Your task to perform on an android device: Open ESPN.com Image 0: 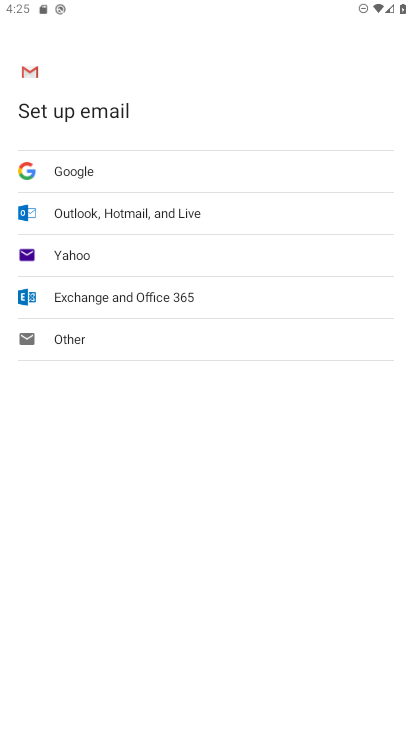
Step 0: press home button
Your task to perform on an android device: Open ESPN.com Image 1: 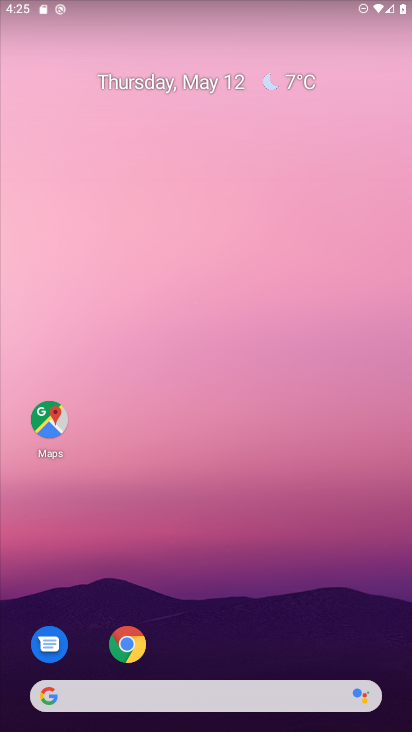
Step 1: click (130, 657)
Your task to perform on an android device: Open ESPN.com Image 2: 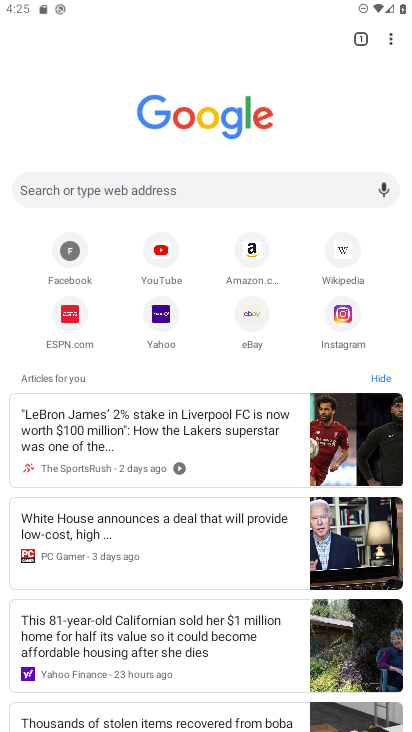
Step 2: click (77, 334)
Your task to perform on an android device: Open ESPN.com Image 3: 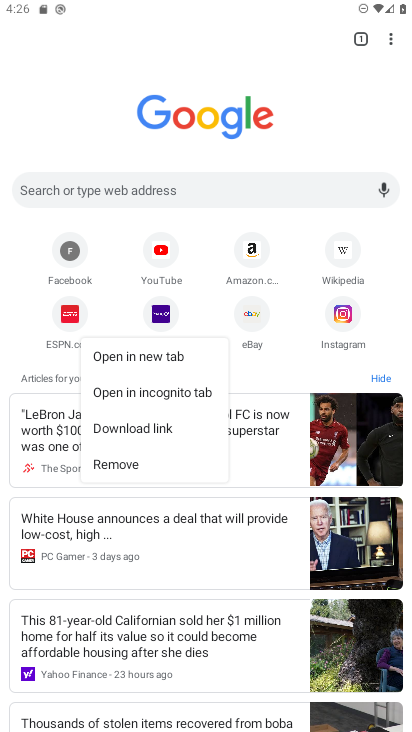
Step 3: click (69, 329)
Your task to perform on an android device: Open ESPN.com Image 4: 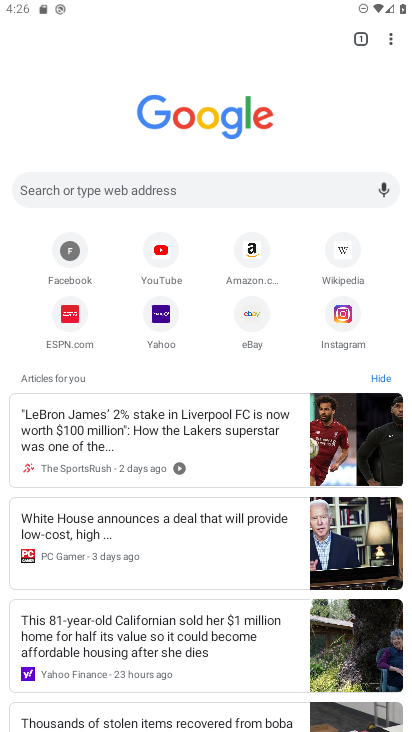
Step 4: click (69, 331)
Your task to perform on an android device: Open ESPN.com Image 5: 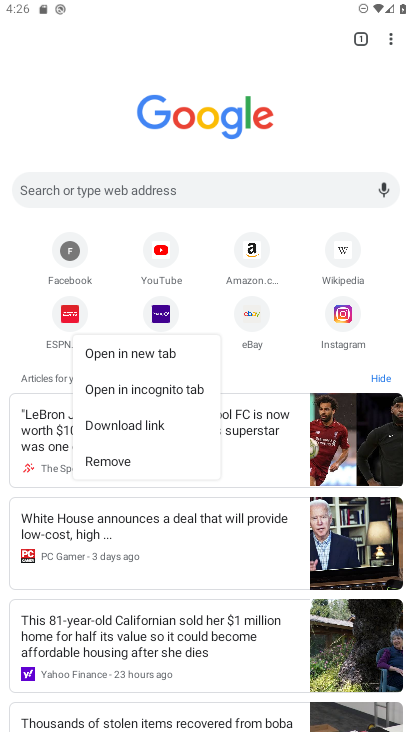
Step 5: click (60, 307)
Your task to perform on an android device: Open ESPN.com Image 6: 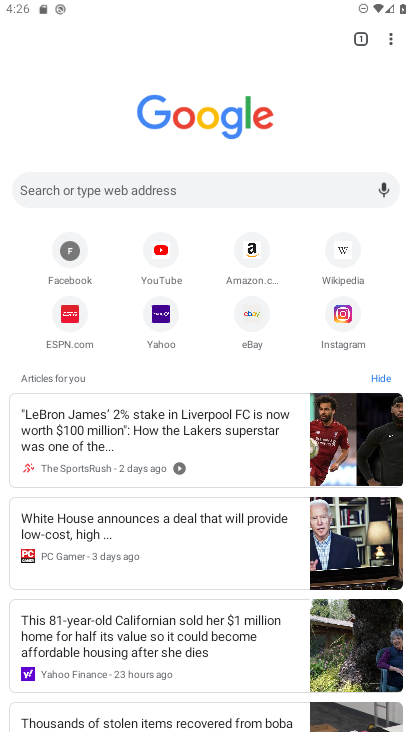
Step 6: click (59, 315)
Your task to perform on an android device: Open ESPN.com Image 7: 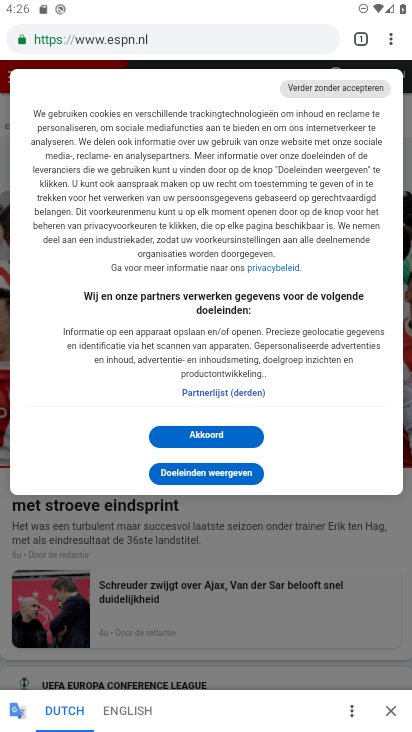
Step 7: task complete